Your task to perform on an android device: open chrome privacy settings Image 0: 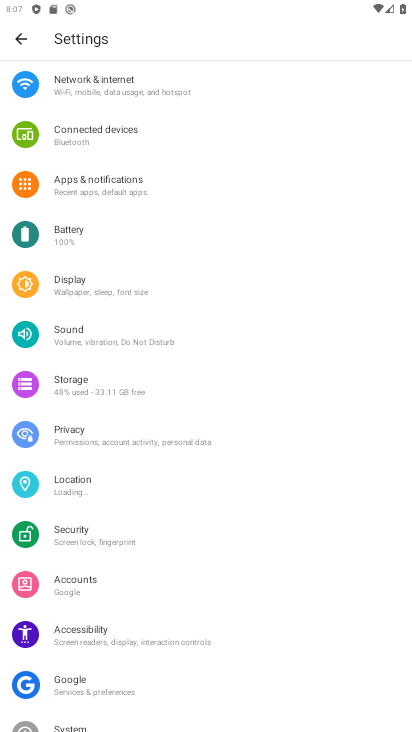
Step 0: press home button
Your task to perform on an android device: open chrome privacy settings Image 1: 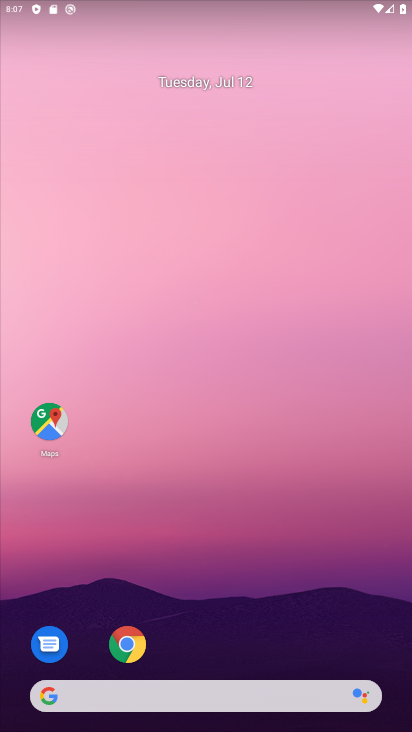
Step 1: click (133, 642)
Your task to perform on an android device: open chrome privacy settings Image 2: 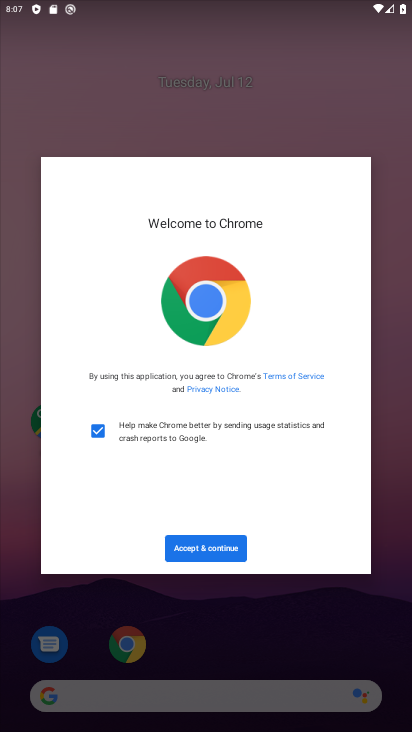
Step 2: click (205, 552)
Your task to perform on an android device: open chrome privacy settings Image 3: 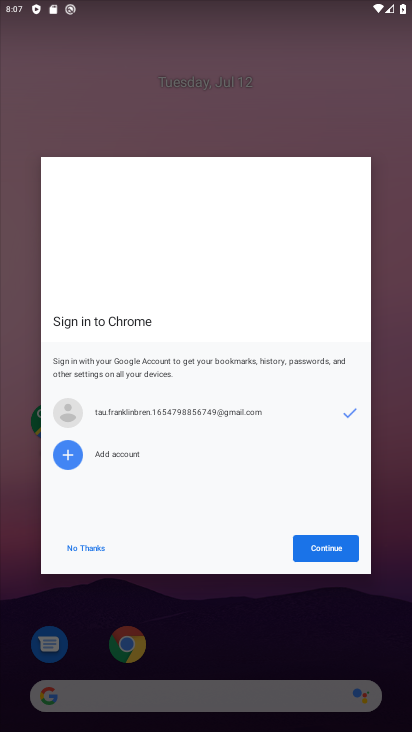
Step 3: click (329, 547)
Your task to perform on an android device: open chrome privacy settings Image 4: 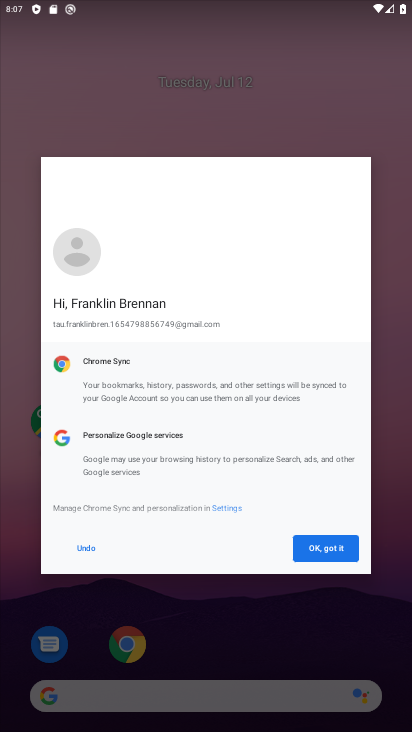
Step 4: click (329, 547)
Your task to perform on an android device: open chrome privacy settings Image 5: 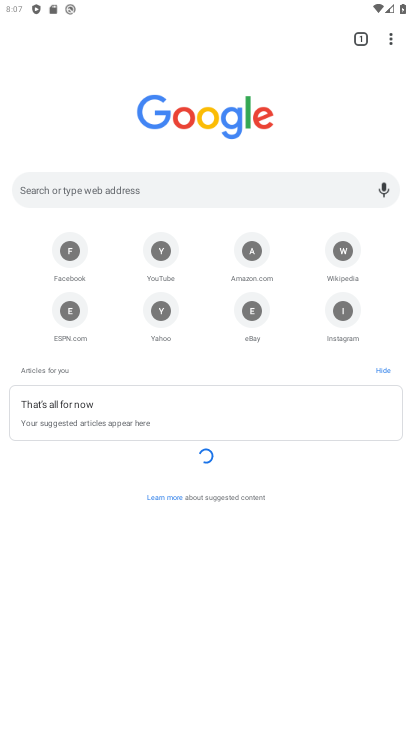
Step 5: click (390, 43)
Your task to perform on an android device: open chrome privacy settings Image 6: 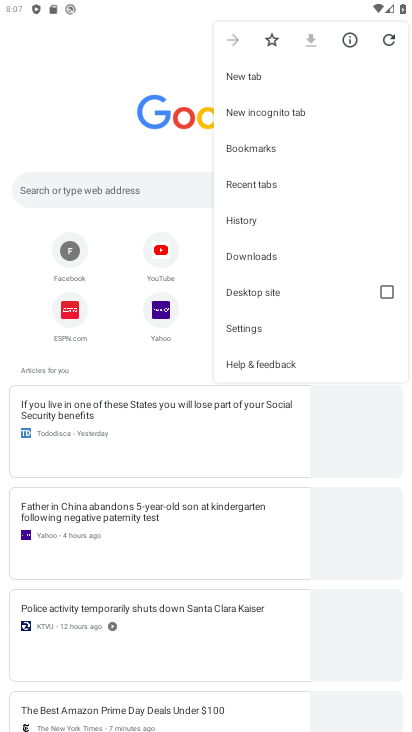
Step 6: click (243, 329)
Your task to perform on an android device: open chrome privacy settings Image 7: 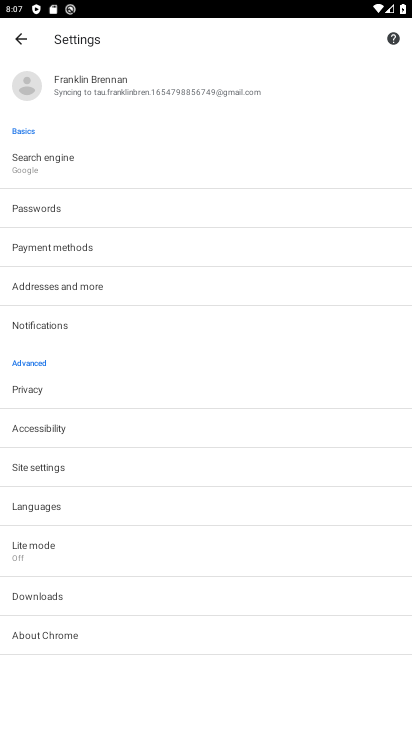
Step 7: click (18, 391)
Your task to perform on an android device: open chrome privacy settings Image 8: 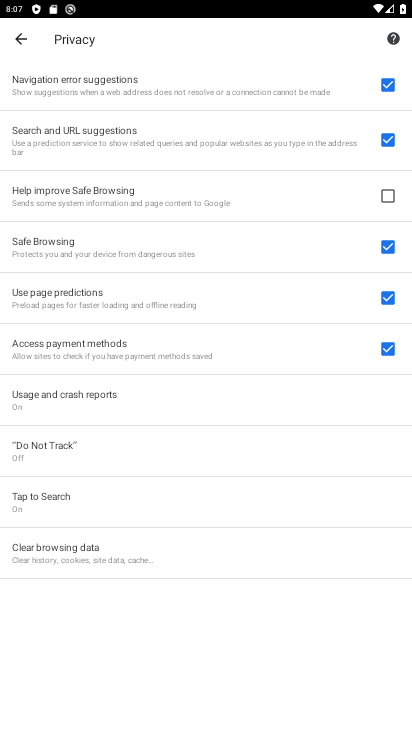
Step 8: task complete